Your task to perform on an android device: change alarm snooze length Image 0: 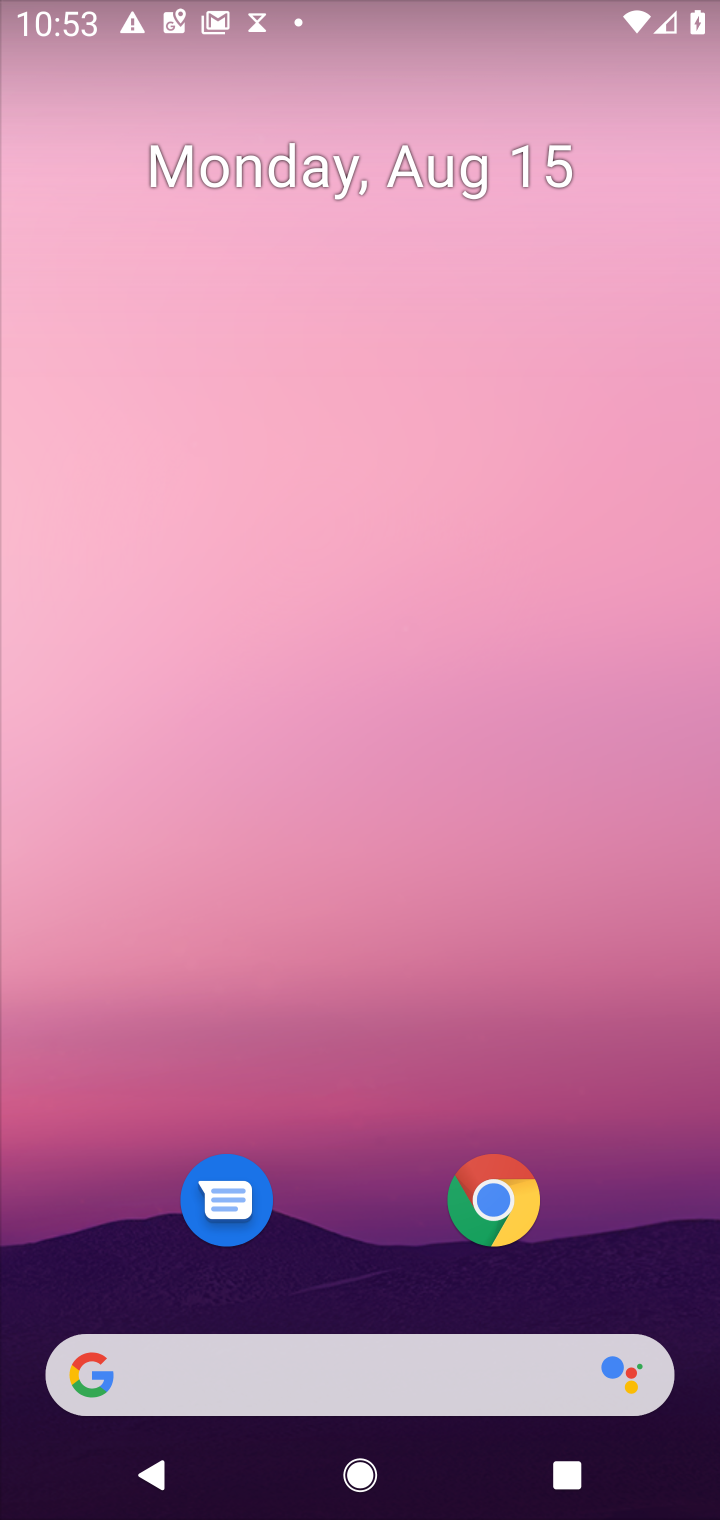
Step 0: drag from (370, 1131) to (373, 299)
Your task to perform on an android device: change alarm snooze length Image 1: 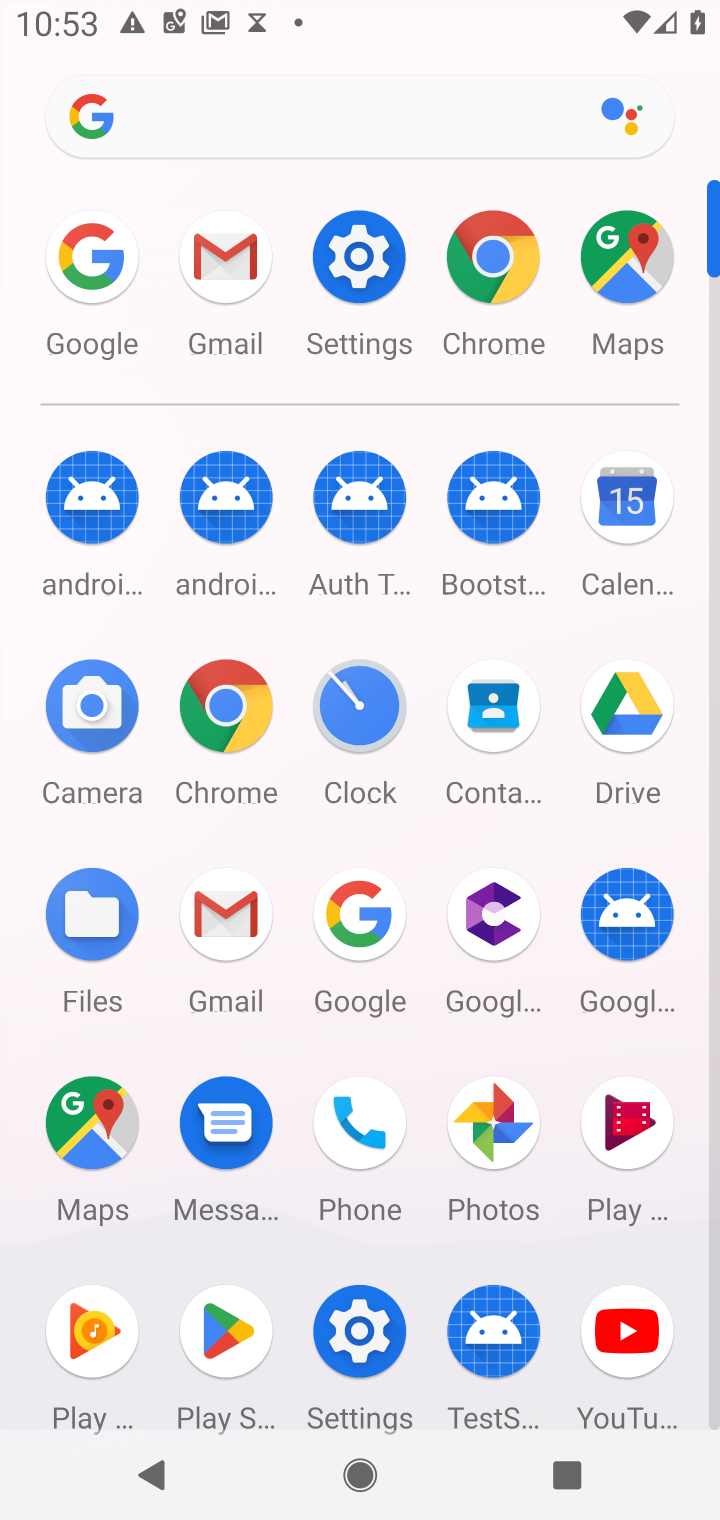
Step 1: click (364, 715)
Your task to perform on an android device: change alarm snooze length Image 2: 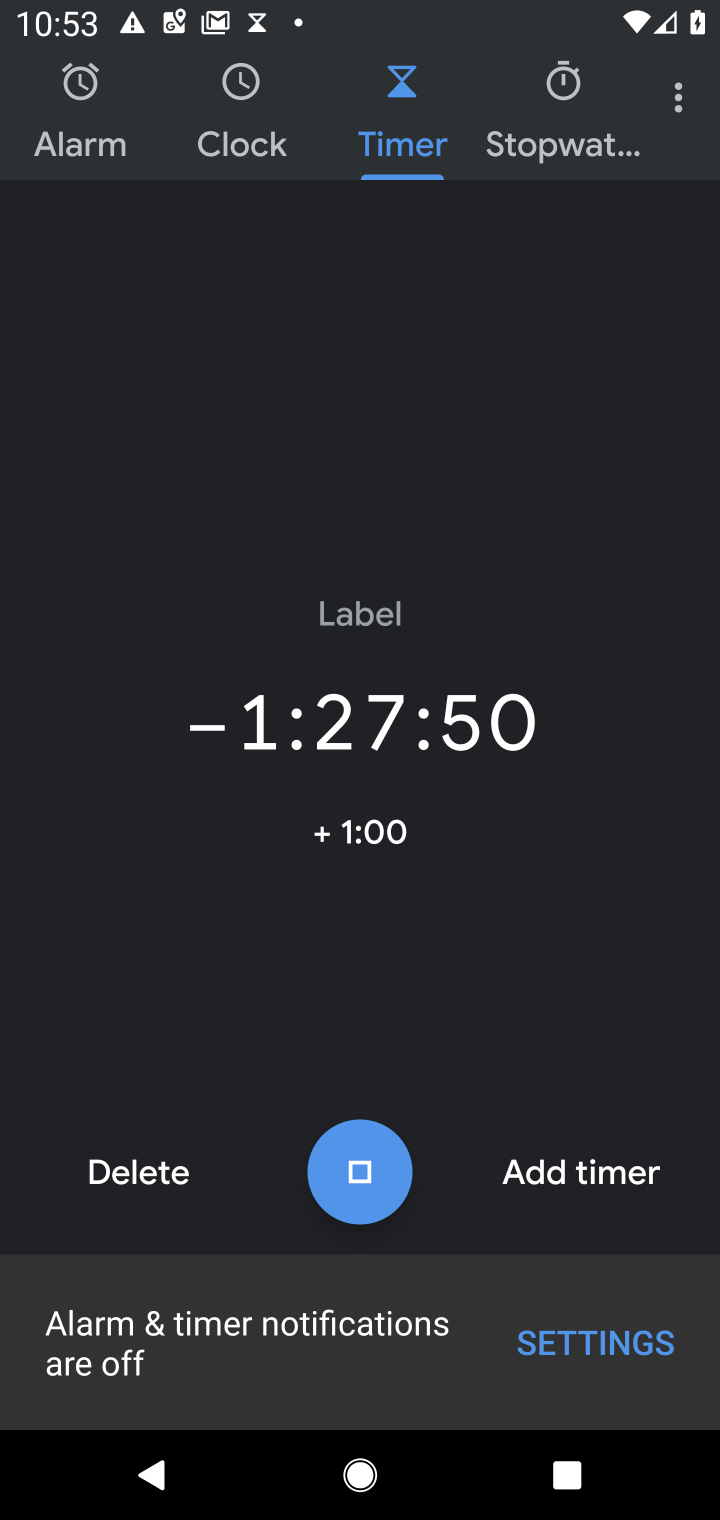
Step 2: click (668, 112)
Your task to perform on an android device: change alarm snooze length Image 3: 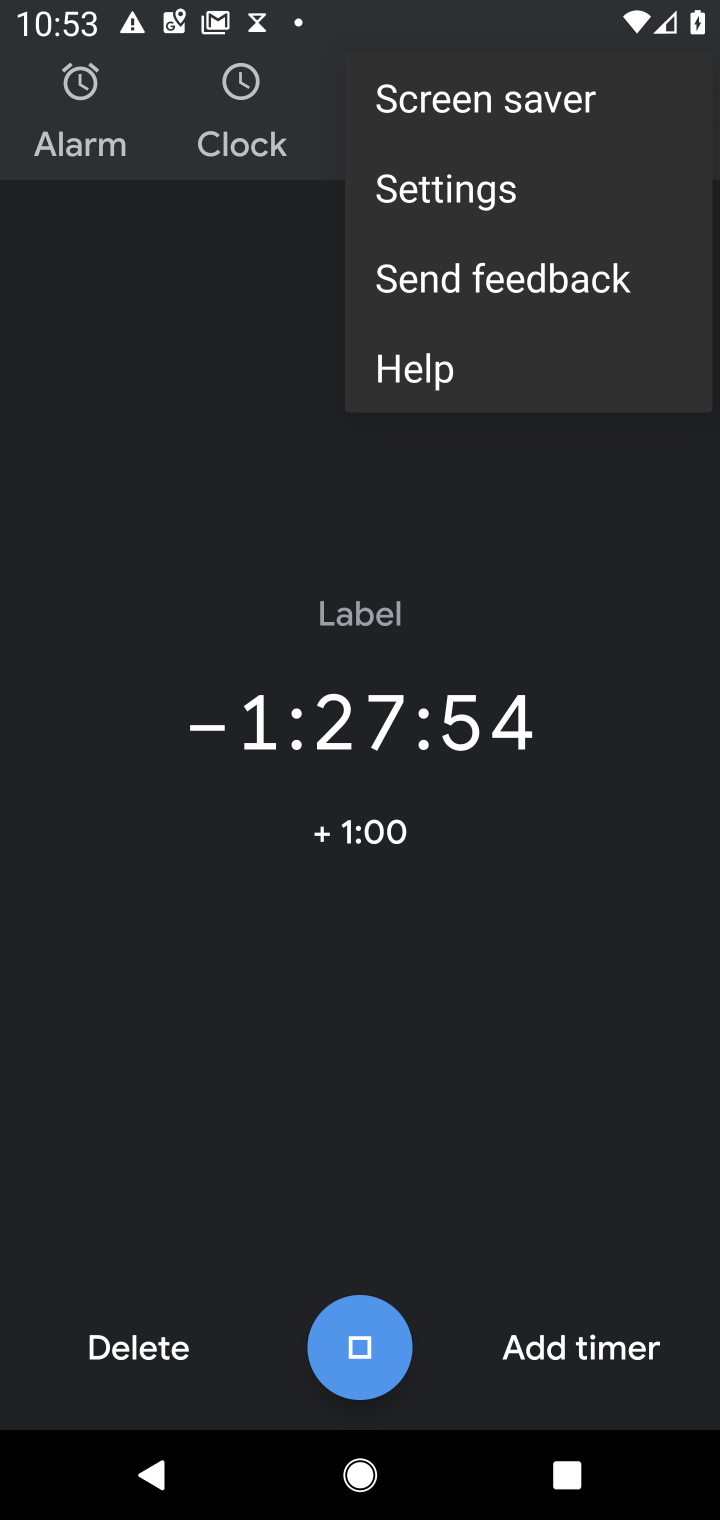
Step 3: click (437, 173)
Your task to perform on an android device: change alarm snooze length Image 4: 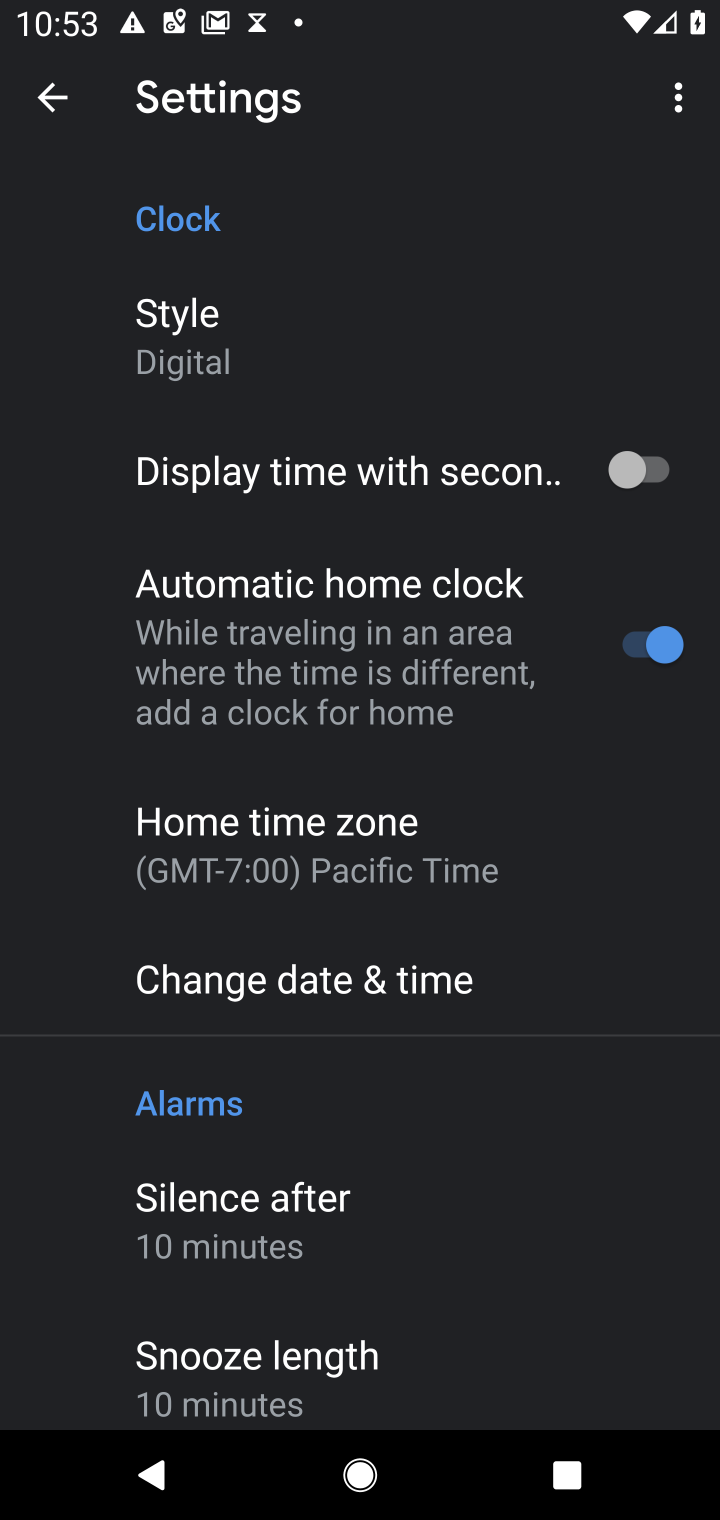
Step 4: click (317, 1346)
Your task to perform on an android device: change alarm snooze length Image 5: 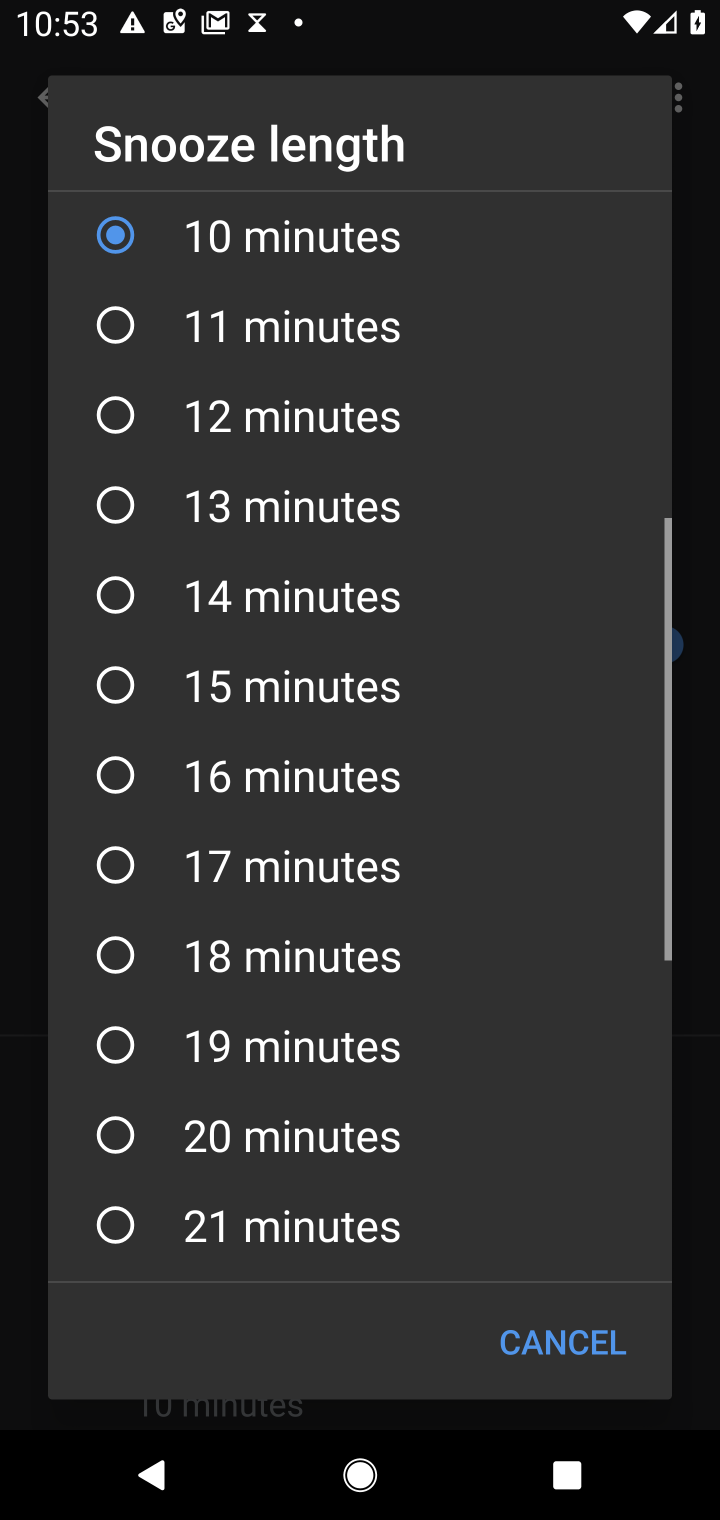
Step 5: click (339, 927)
Your task to perform on an android device: change alarm snooze length Image 6: 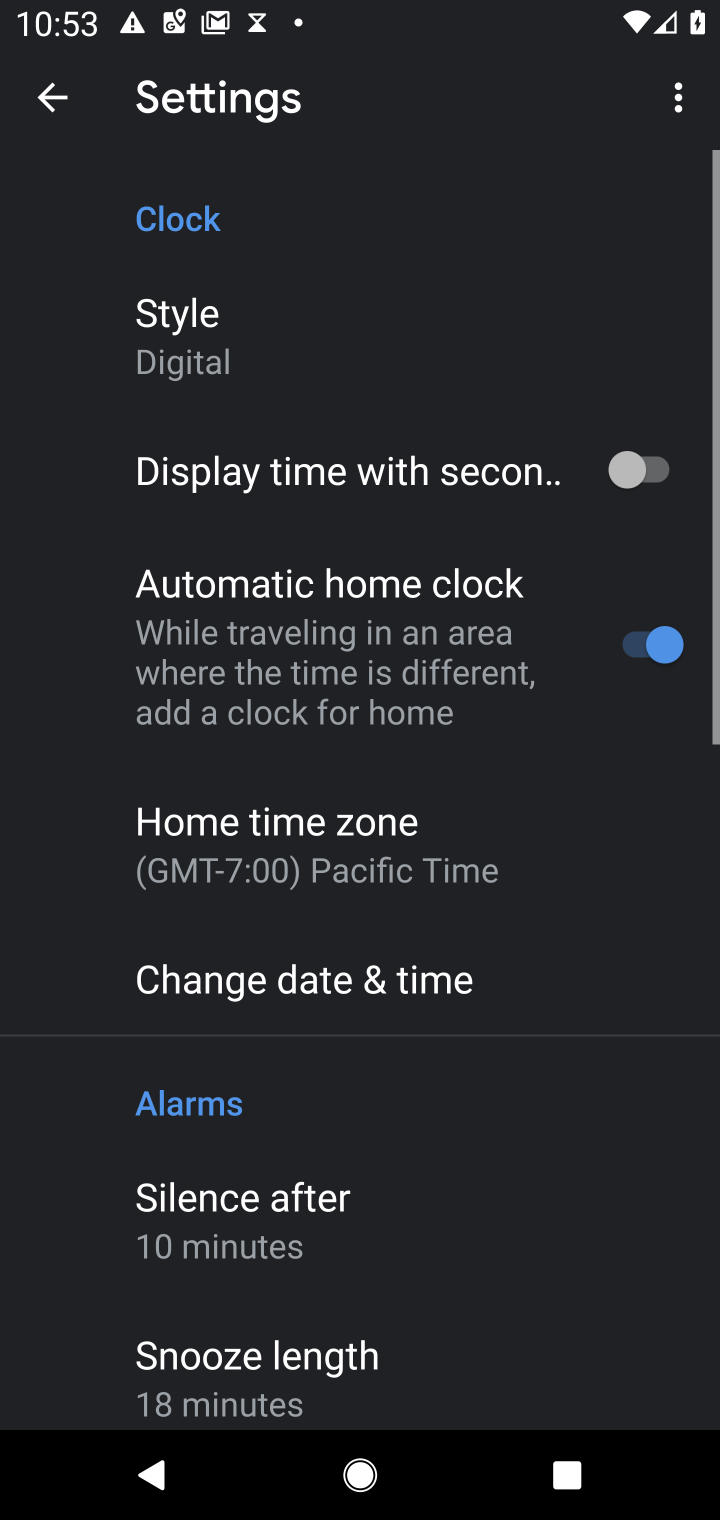
Step 6: task complete